Your task to perform on an android device: Open Google Chrome Image 0: 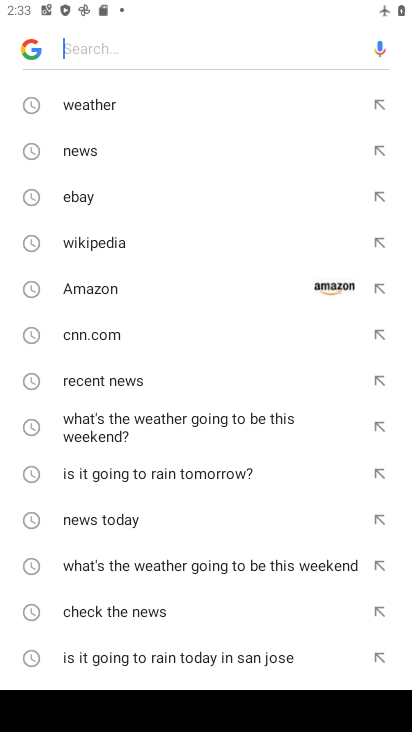
Step 0: press home button
Your task to perform on an android device: Open Google Chrome Image 1: 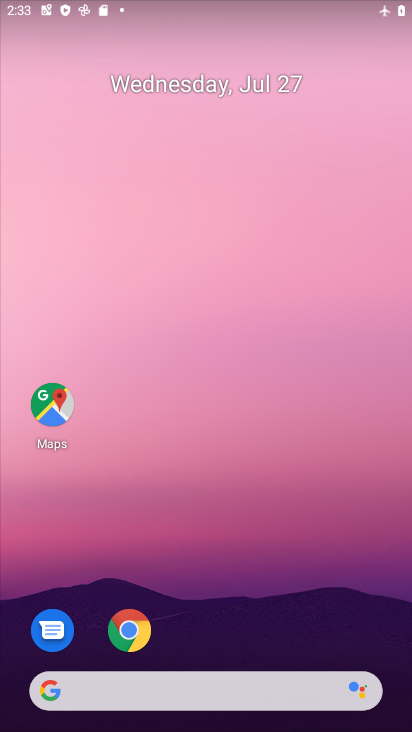
Step 1: click (113, 628)
Your task to perform on an android device: Open Google Chrome Image 2: 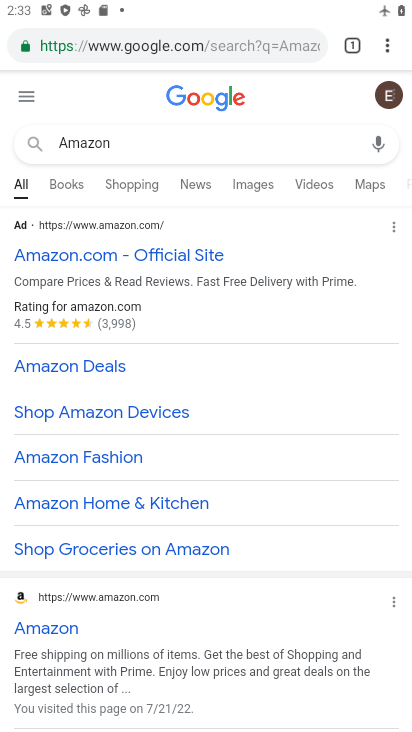
Step 2: task complete